Your task to perform on an android device: set an alarm Image 0: 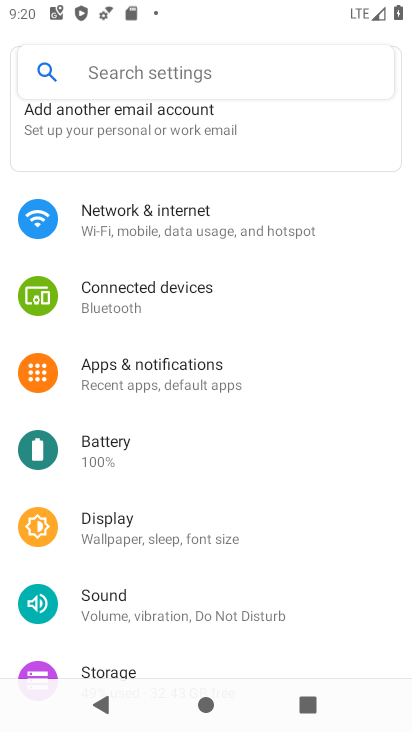
Step 0: press home button
Your task to perform on an android device: set an alarm Image 1: 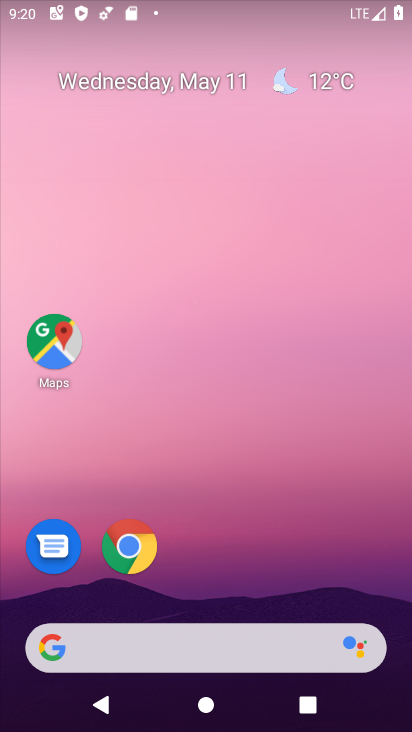
Step 1: drag from (397, 616) to (278, 452)
Your task to perform on an android device: set an alarm Image 2: 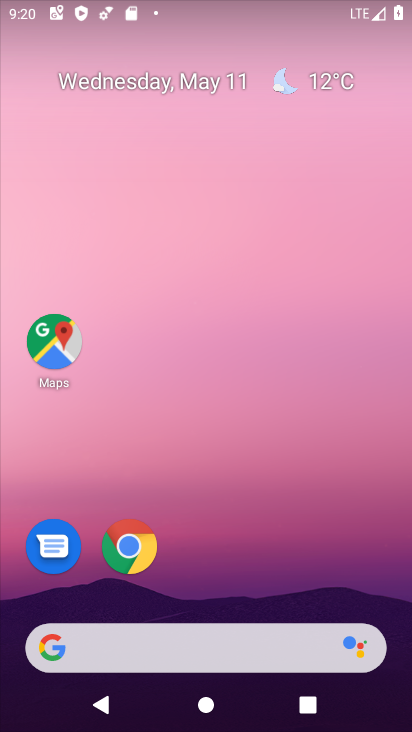
Step 2: drag from (381, 636) to (236, 258)
Your task to perform on an android device: set an alarm Image 3: 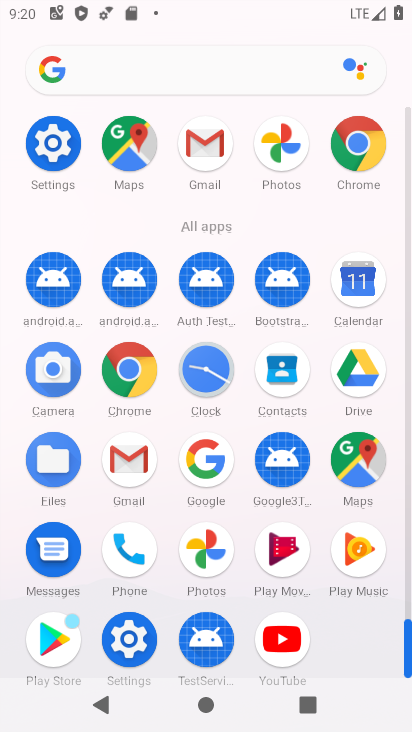
Step 3: click (205, 375)
Your task to perform on an android device: set an alarm Image 4: 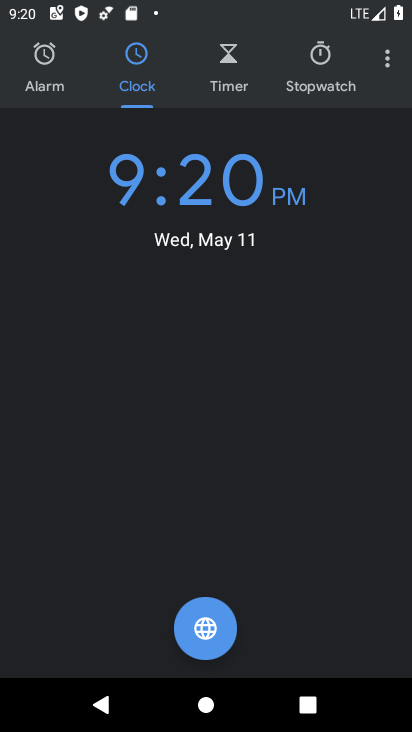
Step 4: click (44, 54)
Your task to perform on an android device: set an alarm Image 5: 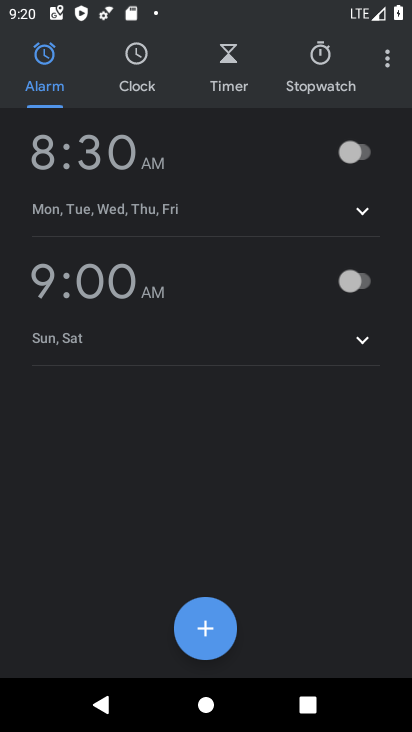
Step 5: click (85, 168)
Your task to perform on an android device: set an alarm Image 6: 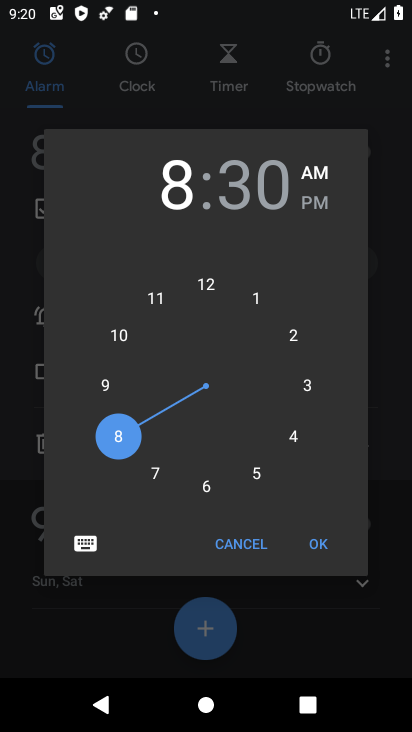
Step 6: click (205, 483)
Your task to perform on an android device: set an alarm Image 7: 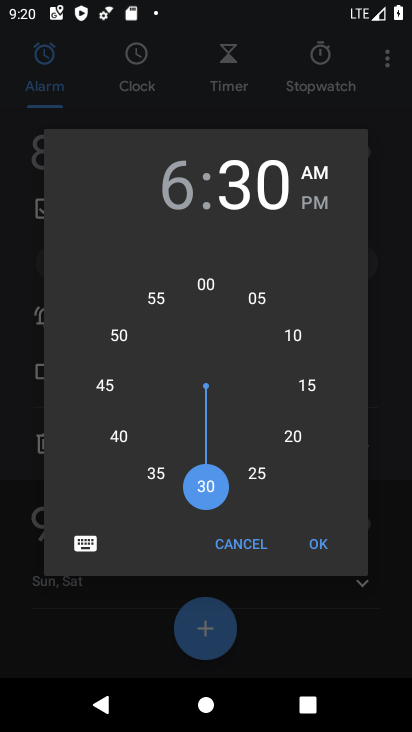
Step 7: click (314, 383)
Your task to perform on an android device: set an alarm Image 8: 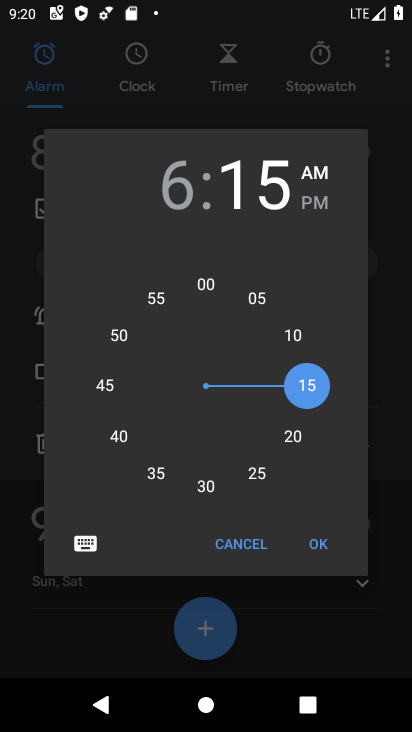
Step 8: click (317, 548)
Your task to perform on an android device: set an alarm Image 9: 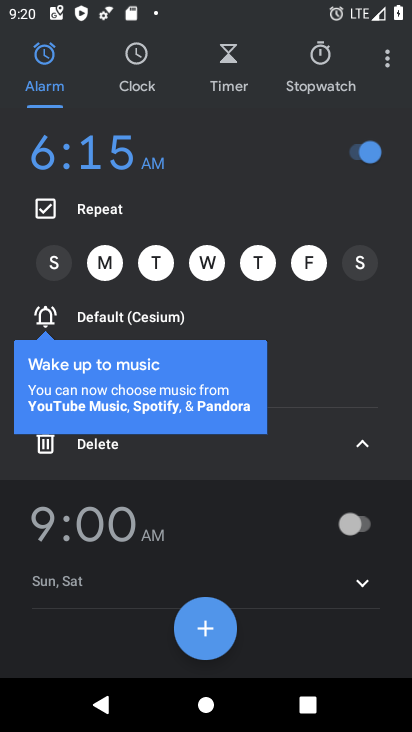
Step 9: click (362, 258)
Your task to perform on an android device: set an alarm Image 10: 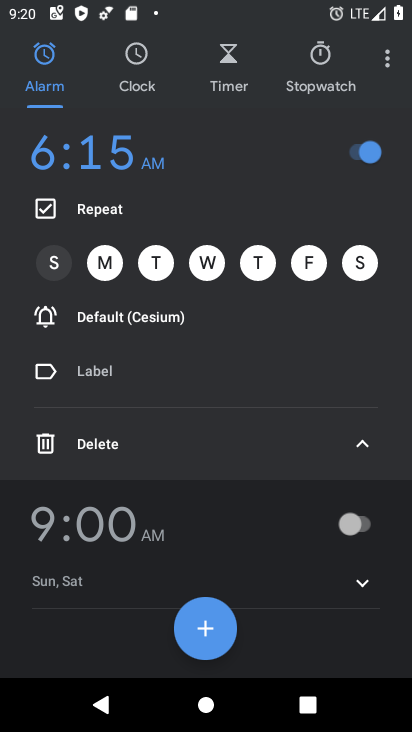
Step 10: click (361, 441)
Your task to perform on an android device: set an alarm Image 11: 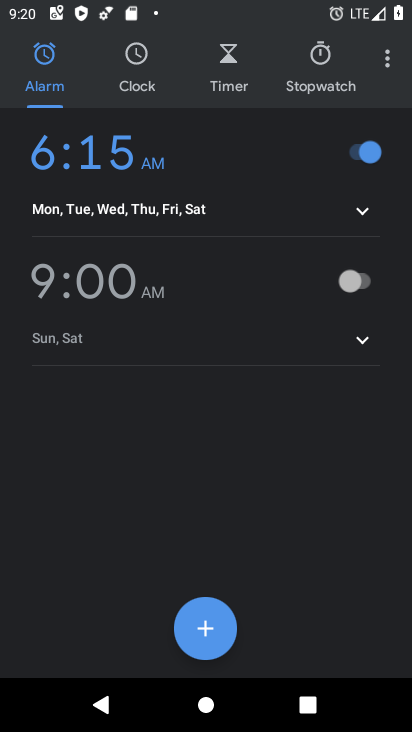
Step 11: task complete